Your task to perform on an android device: turn off data saver in the chrome app Image 0: 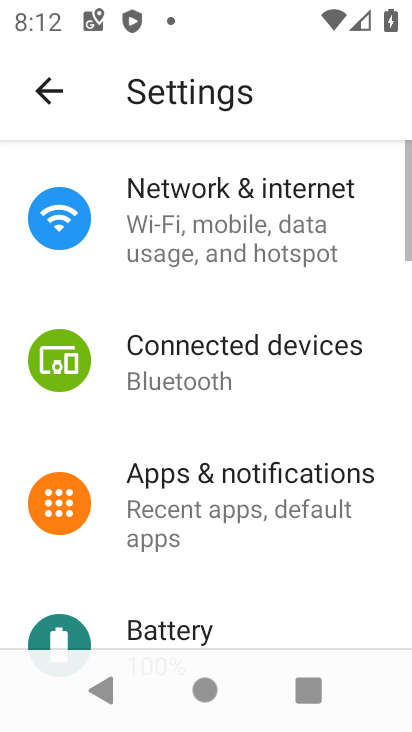
Step 0: press home button
Your task to perform on an android device: turn off data saver in the chrome app Image 1: 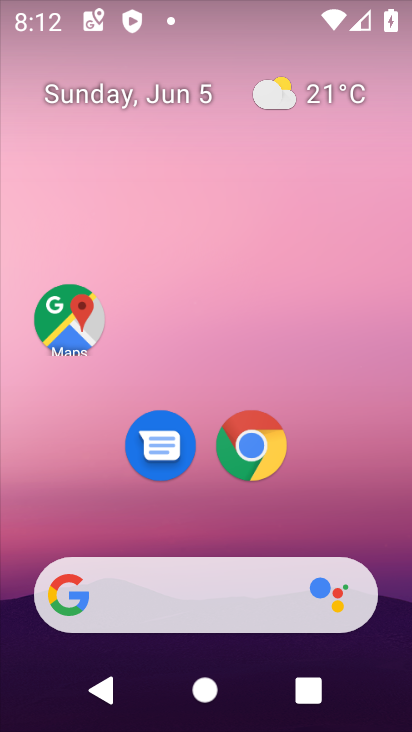
Step 1: click (253, 449)
Your task to perform on an android device: turn off data saver in the chrome app Image 2: 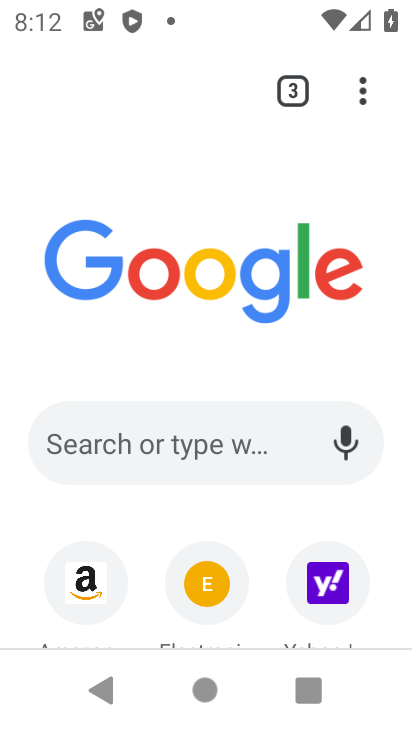
Step 2: drag from (367, 90) to (201, 460)
Your task to perform on an android device: turn off data saver in the chrome app Image 3: 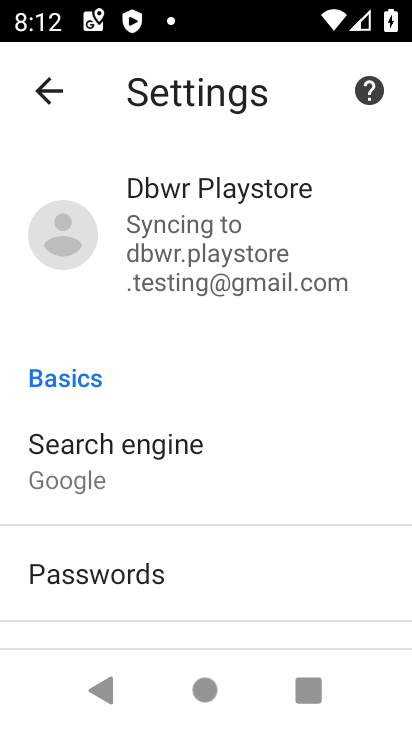
Step 3: drag from (344, 465) to (340, 19)
Your task to perform on an android device: turn off data saver in the chrome app Image 4: 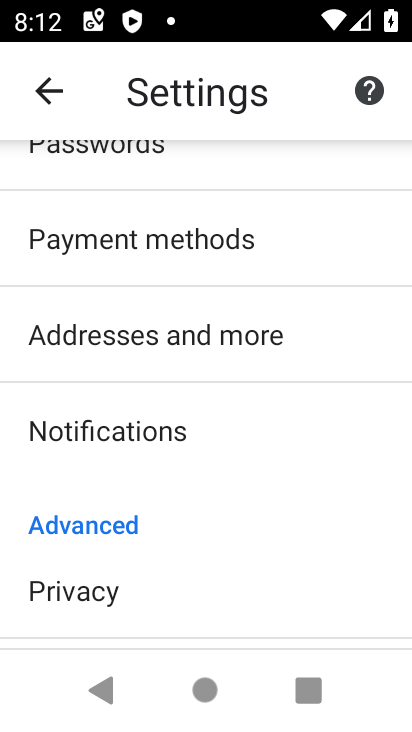
Step 4: drag from (268, 533) to (260, 188)
Your task to perform on an android device: turn off data saver in the chrome app Image 5: 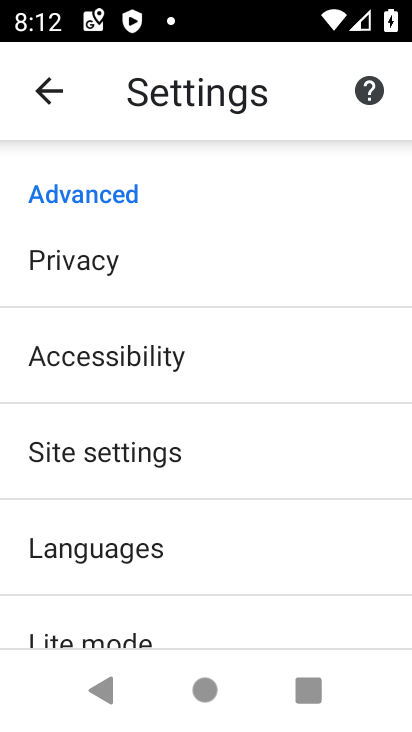
Step 5: click (288, 616)
Your task to perform on an android device: turn off data saver in the chrome app Image 6: 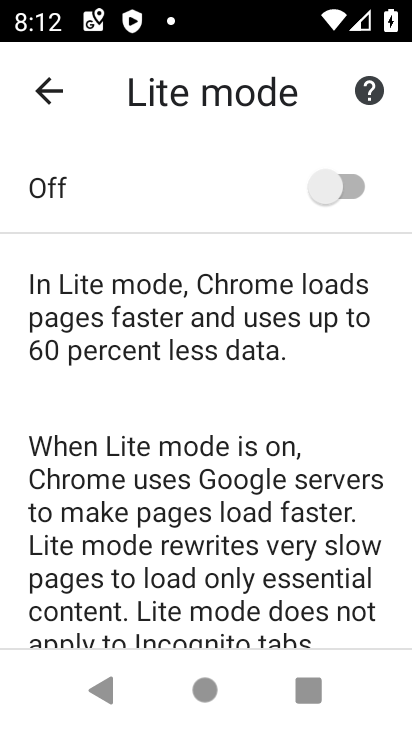
Step 6: task complete